Your task to perform on an android device: allow notifications from all sites in the chrome app Image 0: 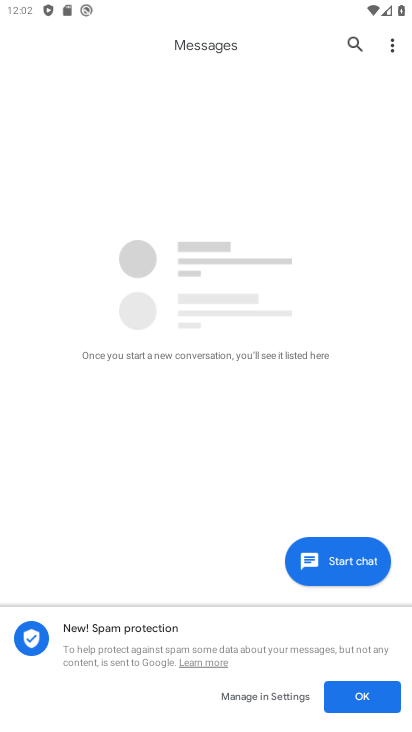
Step 0: press home button
Your task to perform on an android device: allow notifications from all sites in the chrome app Image 1: 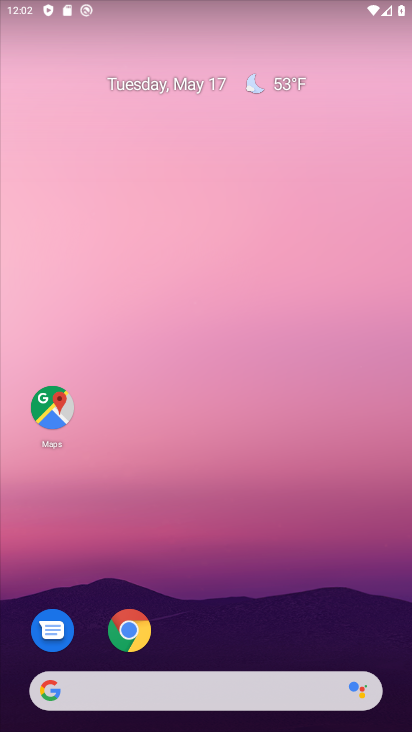
Step 1: drag from (253, 652) to (321, 143)
Your task to perform on an android device: allow notifications from all sites in the chrome app Image 2: 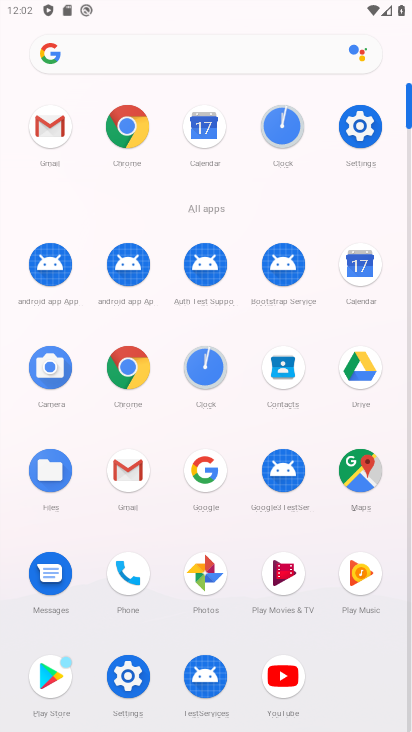
Step 2: click (145, 375)
Your task to perform on an android device: allow notifications from all sites in the chrome app Image 3: 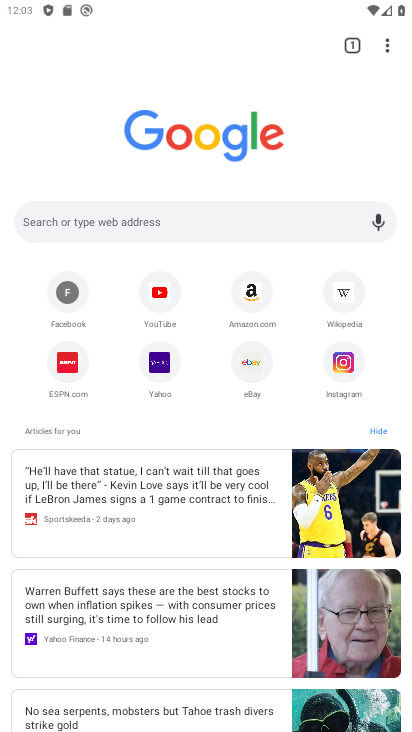
Step 3: click (389, 47)
Your task to perform on an android device: allow notifications from all sites in the chrome app Image 4: 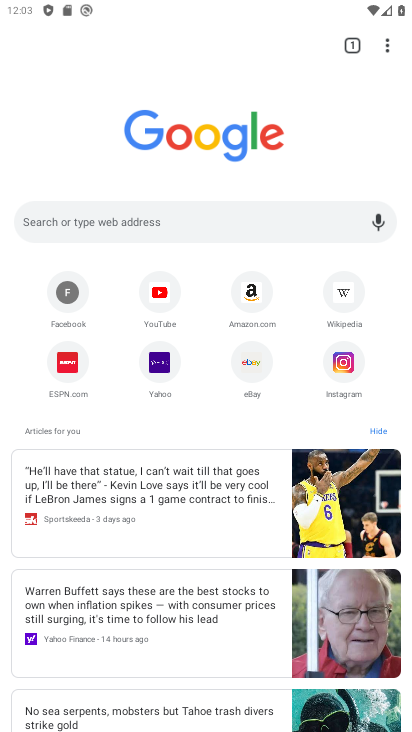
Step 4: click (383, 50)
Your task to perform on an android device: allow notifications from all sites in the chrome app Image 5: 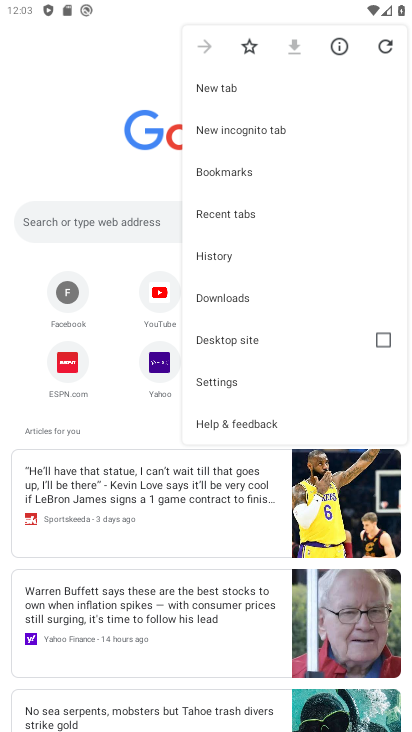
Step 5: click (237, 384)
Your task to perform on an android device: allow notifications from all sites in the chrome app Image 6: 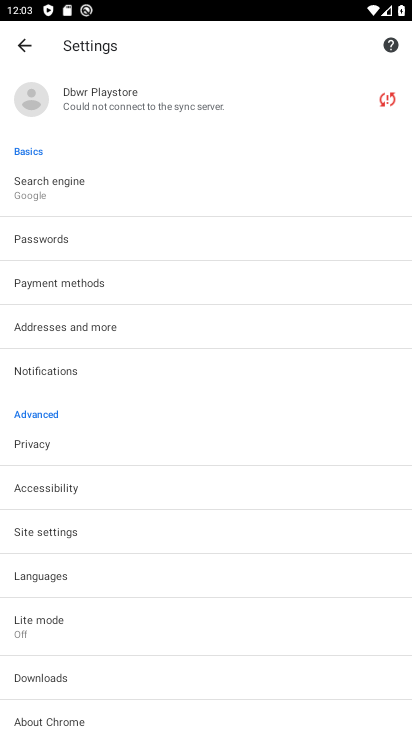
Step 6: click (98, 372)
Your task to perform on an android device: allow notifications from all sites in the chrome app Image 7: 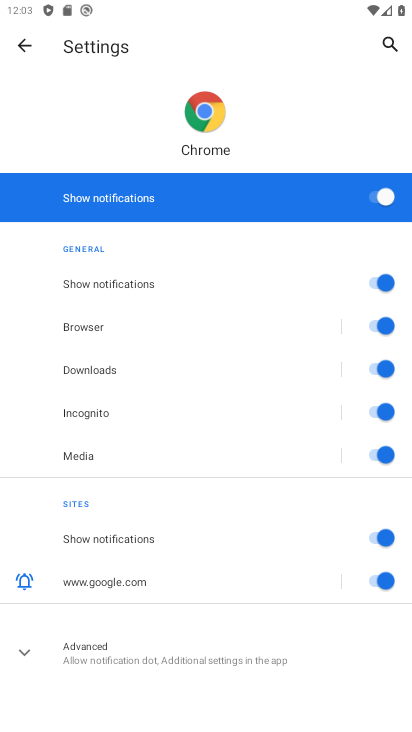
Step 7: task complete